Your task to perform on an android device: check out phone information Image 0: 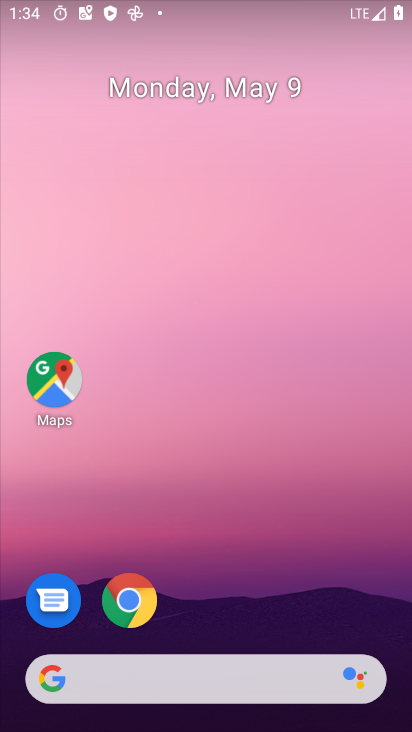
Step 0: drag from (293, 236) to (287, 108)
Your task to perform on an android device: check out phone information Image 1: 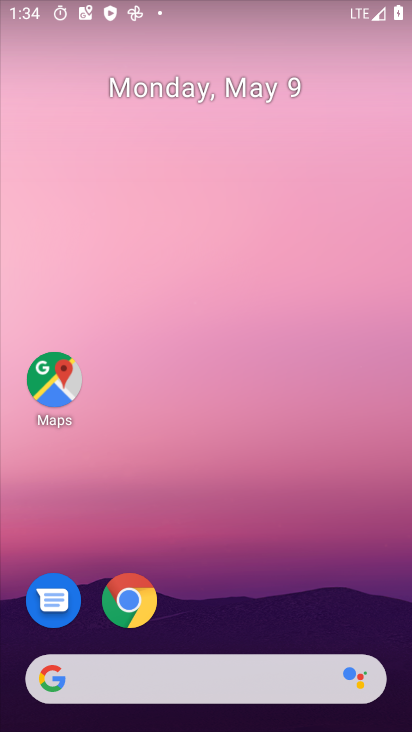
Step 1: drag from (236, 568) to (248, 125)
Your task to perform on an android device: check out phone information Image 2: 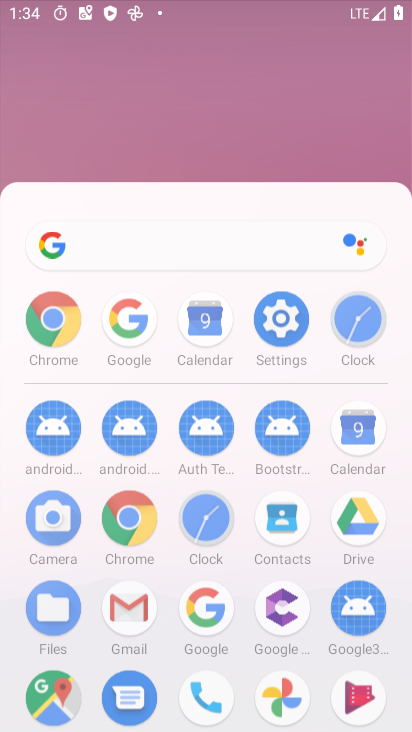
Step 2: click (248, 125)
Your task to perform on an android device: check out phone information Image 3: 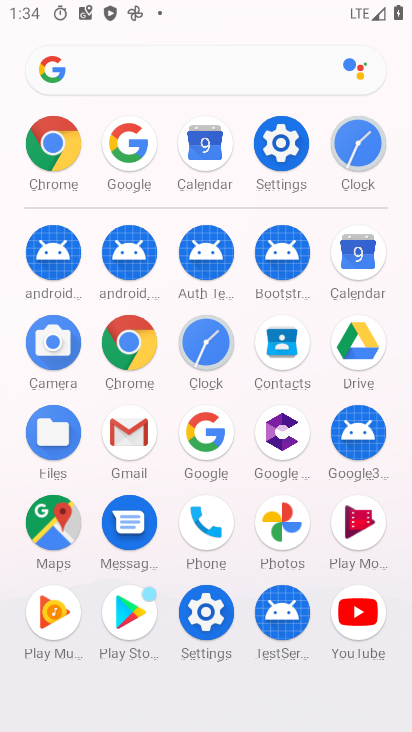
Step 3: click (289, 162)
Your task to perform on an android device: check out phone information Image 4: 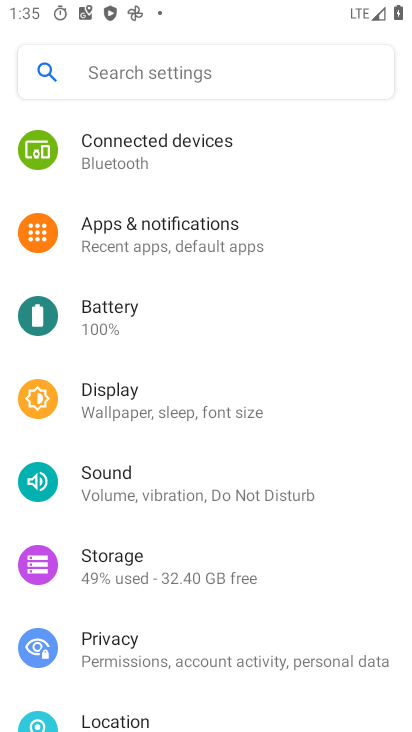
Step 4: drag from (165, 615) to (189, 139)
Your task to perform on an android device: check out phone information Image 5: 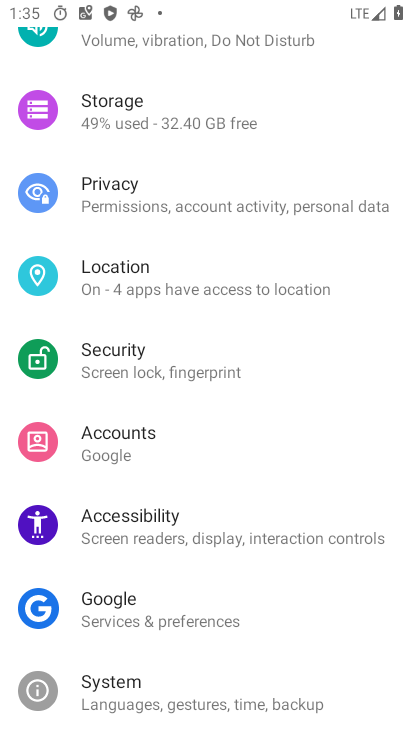
Step 5: drag from (168, 648) to (176, 273)
Your task to perform on an android device: check out phone information Image 6: 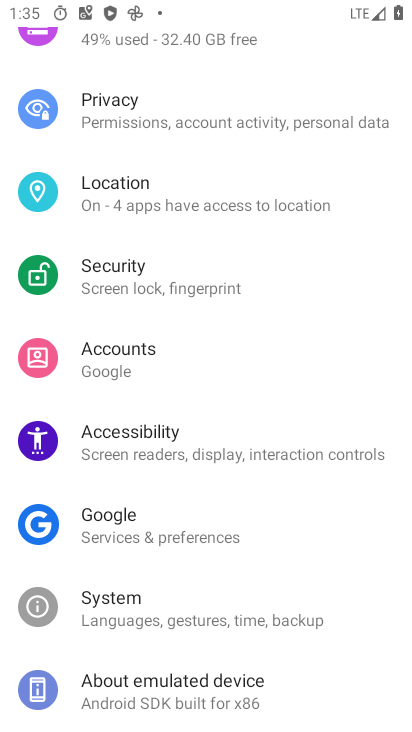
Step 6: click (180, 684)
Your task to perform on an android device: check out phone information Image 7: 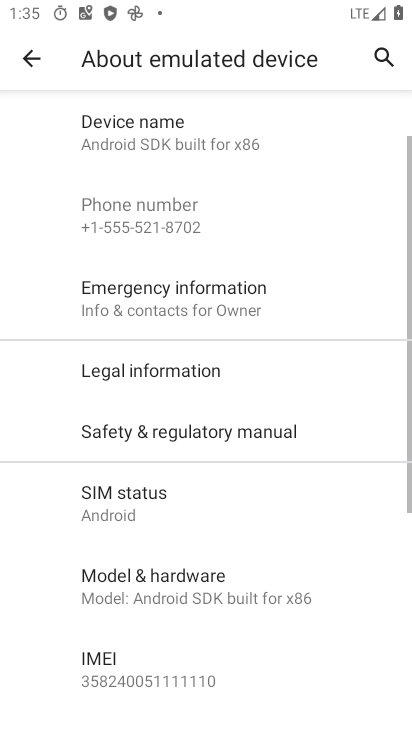
Step 7: click (241, 313)
Your task to perform on an android device: check out phone information Image 8: 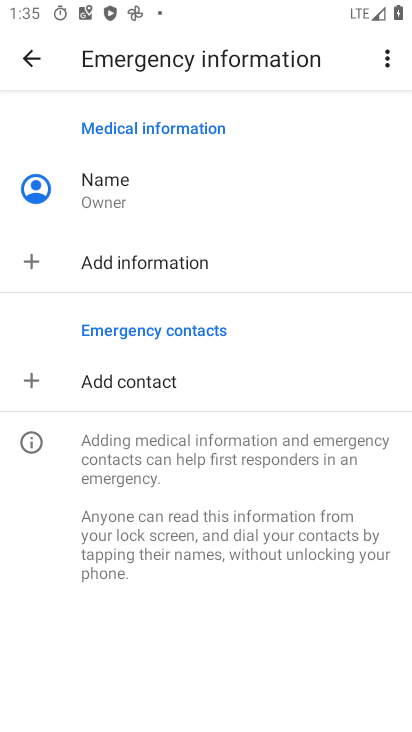
Step 8: task complete